Your task to perform on an android device: Check out the new ikea catalog. Image 0: 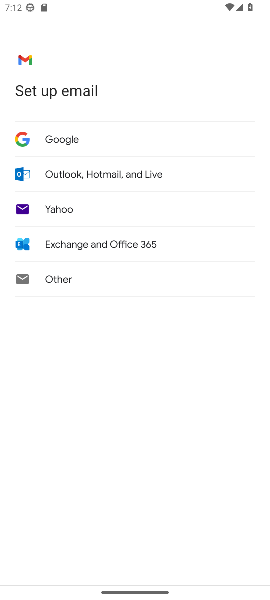
Step 0: press home button
Your task to perform on an android device: Check out the new ikea catalog. Image 1: 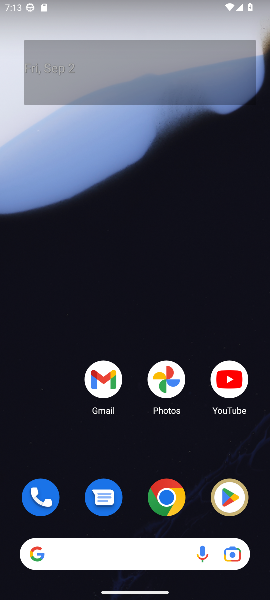
Step 1: click (114, 557)
Your task to perform on an android device: Check out the new ikea catalog. Image 2: 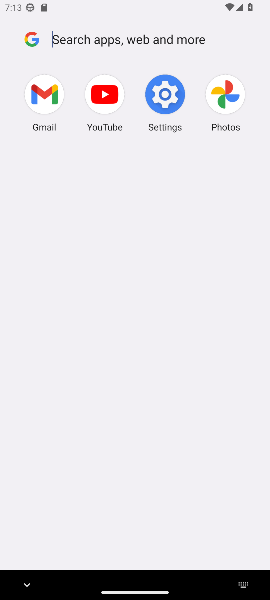
Step 2: press home button
Your task to perform on an android device: Check out the new ikea catalog. Image 3: 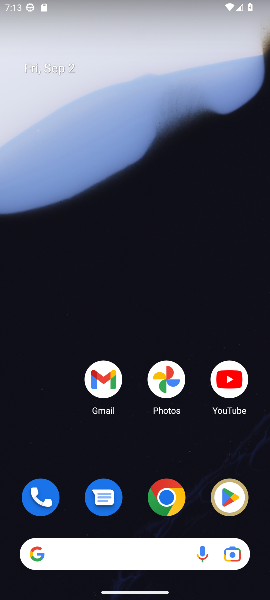
Step 3: drag from (105, 451) to (132, 61)
Your task to perform on an android device: Check out the new ikea catalog. Image 4: 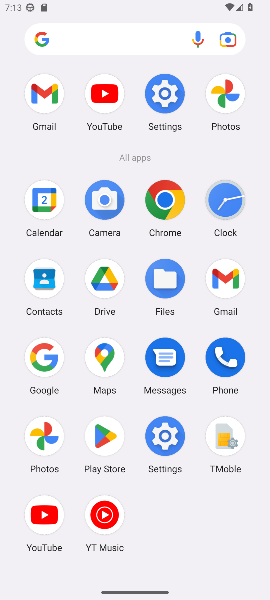
Step 4: click (44, 350)
Your task to perform on an android device: Check out the new ikea catalog. Image 5: 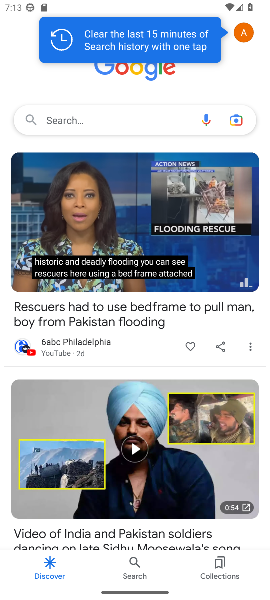
Step 5: click (81, 116)
Your task to perform on an android device: Check out the new ikea catalog. Image 6: 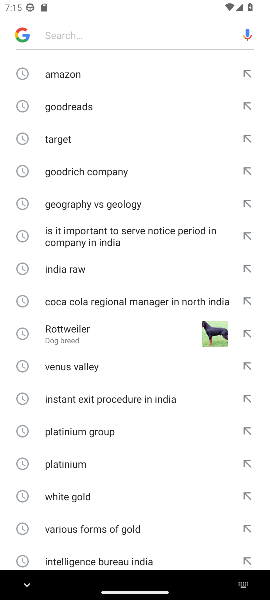
Step 6: type "the new ikea catalog."
Your task to perform on an android device: Check out the new ikea catalog. Image 7: 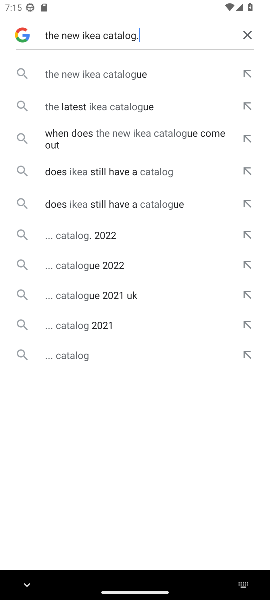
Step 7: click (145, 77)
Your task to perform on an android device: Check out the new ikea catalog. Image 8: 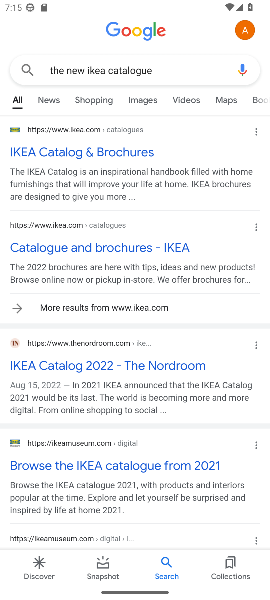
Step 8: task complete